Your task to perform on an android device: What is the recent news? Image 0: 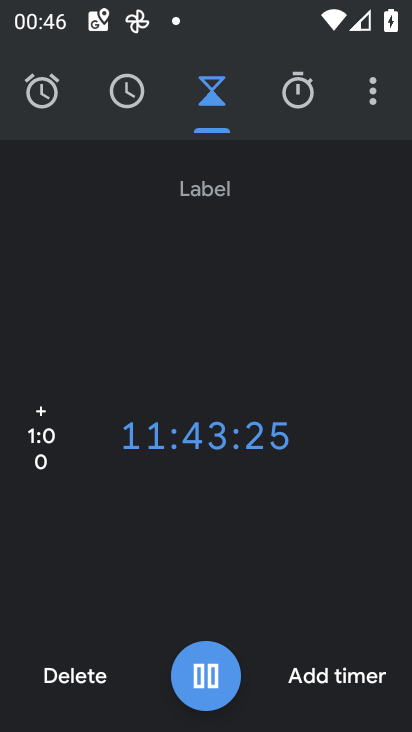
Step 0: press home button
Your task to perform on an android device: What is the recent news? Image 1: 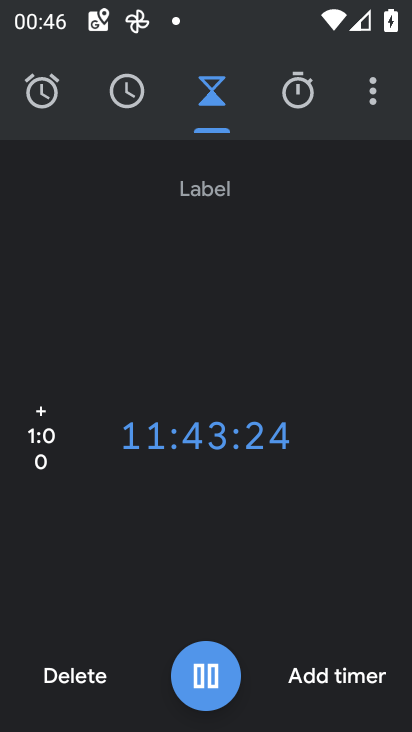
Step 1: press home button
Your task to perform on an android device: What is the recent news? Image 2: 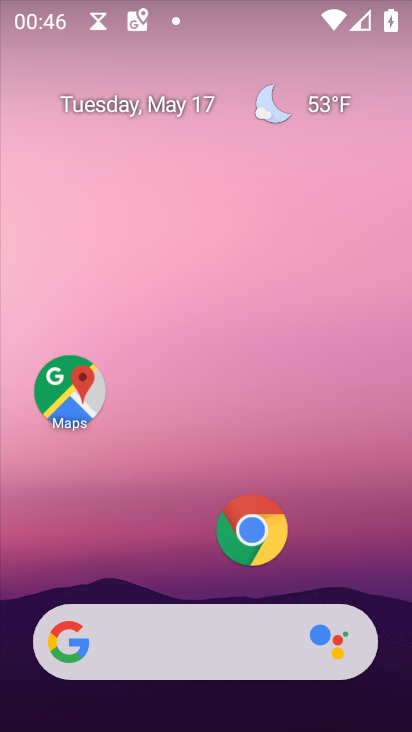
Step 2: click (167, 635)
Your task to perform on an android device: What is the recent news? Image 3: 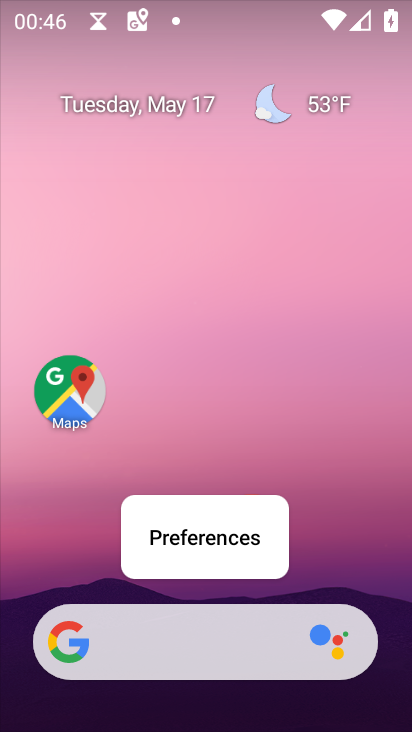
Step 3: click (167, 635)
Your task to perform on an android device: What is the recent news? Image 4: 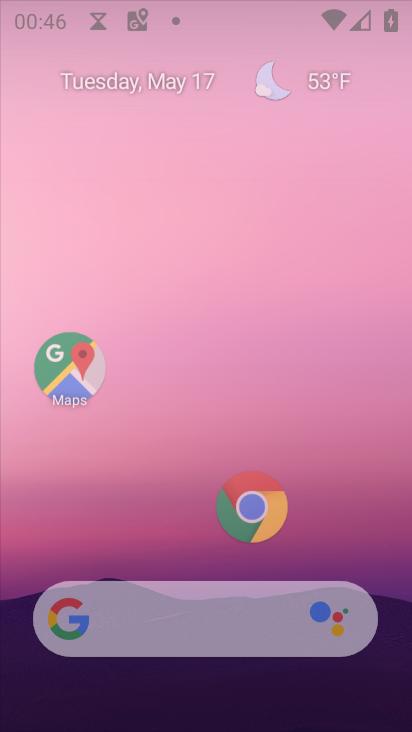
Step 4: click (168, 654)
Your task to perform on an android device: What is the recent news? Image 5: 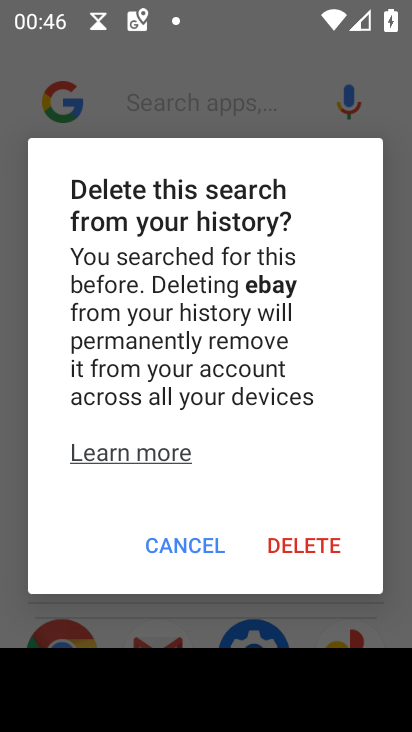
Step 5: click (209, 550)
Your task to perform on an android device: What is the recent news? Image 6: 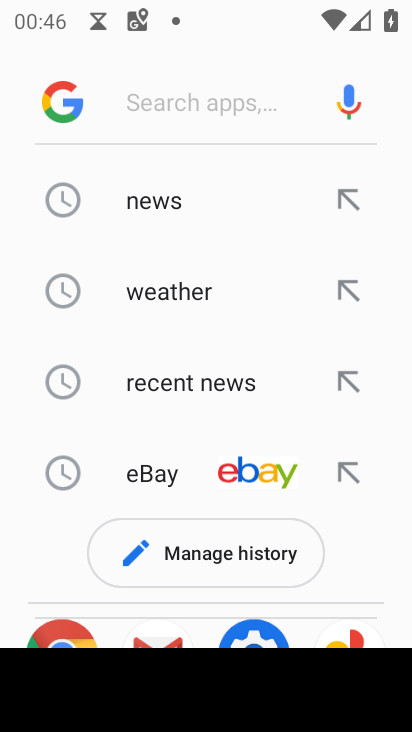
Step 6: click (152, 387)
Your task to perform on an android device: What is the recent news? Image 7: 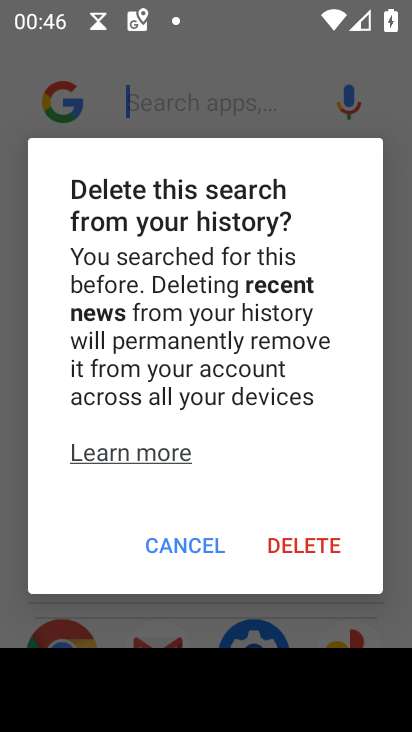
Step 7: click (167, 545)
Your task to perform on an android device: What is the recent news? Image 8: 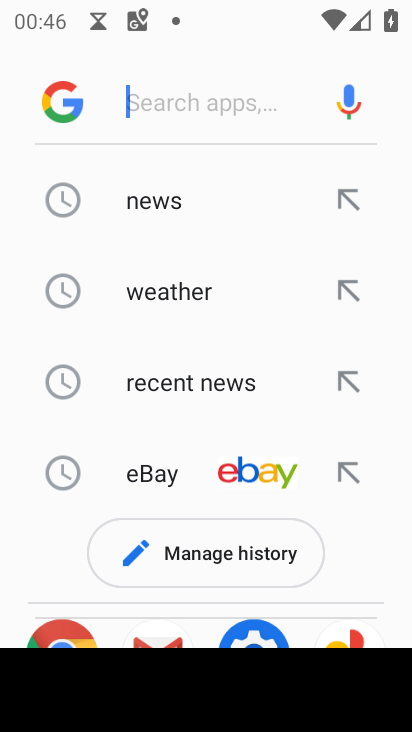
Step 8: click (345, 374)
Your task to perform on an android device: What is the recent news? Image 9: 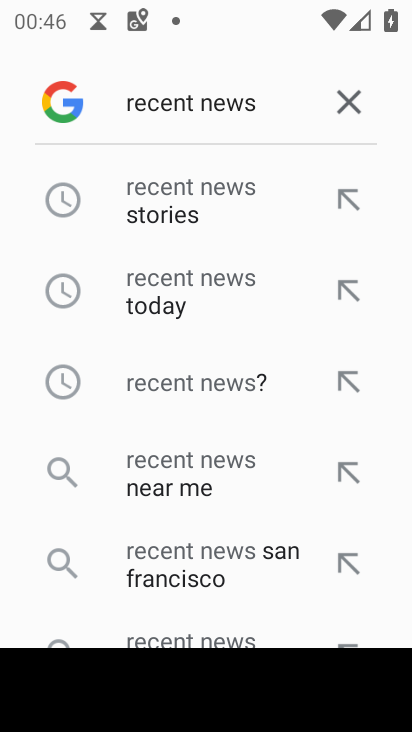
Step 9: click (166, 116)
Your task to perform on an android device: What is the recent news? Image 10: 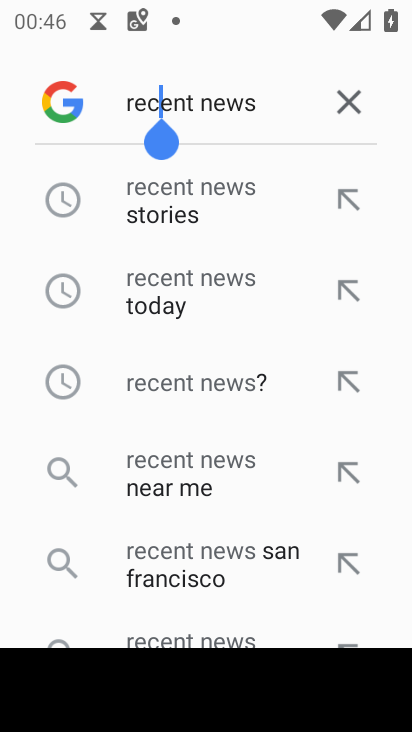
Step 10: click (183, 142)
Your task to perform on an android device: What is the recent news? Image 11: 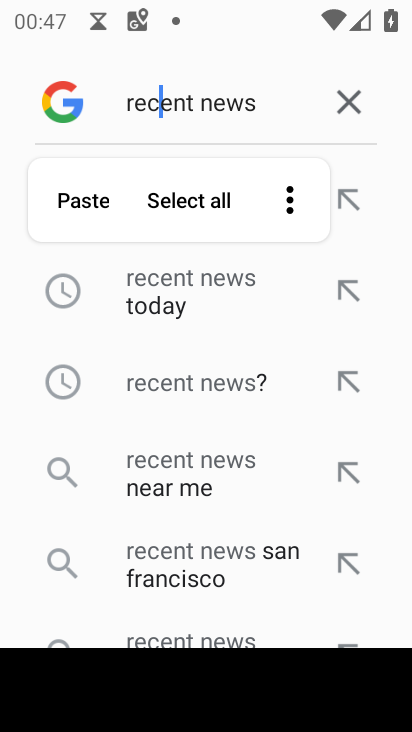
Step 11: click (280, 89)
Your task to perform on an android device: What is the recent news? Image 12: 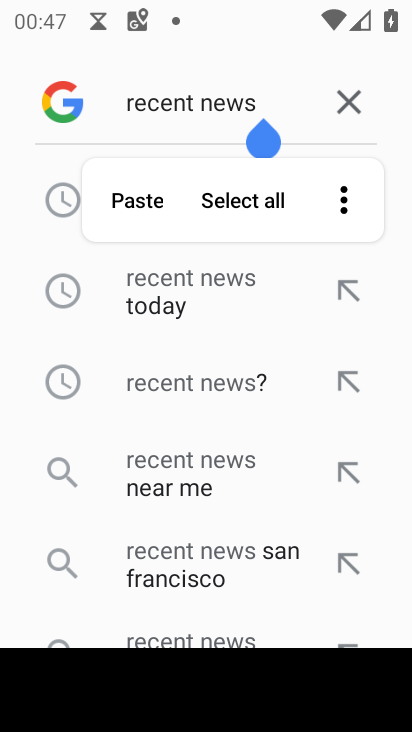
Step 12: click (184, 296)
Your task to perform on an android device: What is the recent news? Image 13: 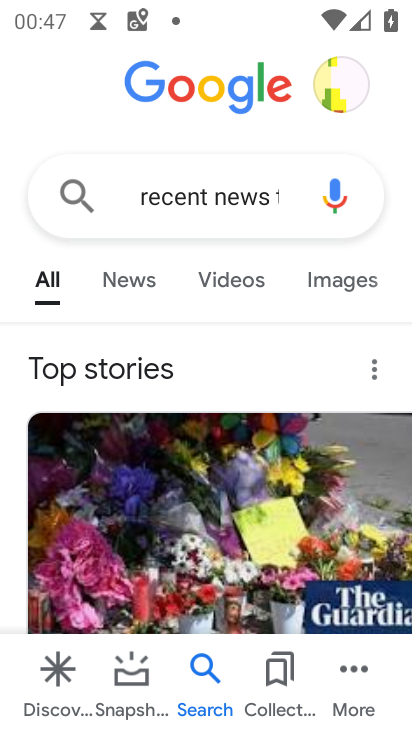
Step 13: task complete